Your task to perform on an android device: Go to internet settings Image 0: 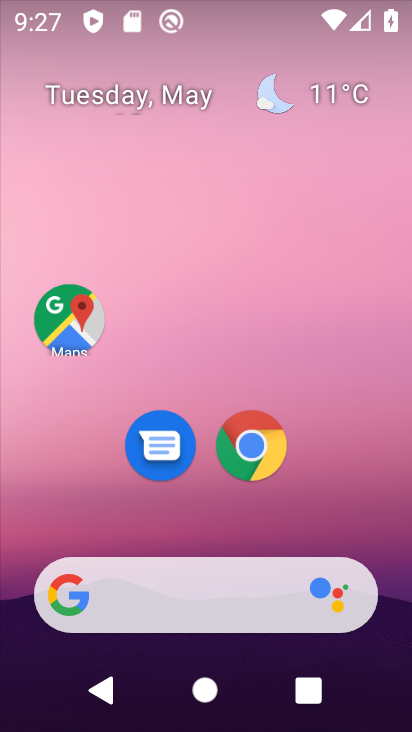
Step 0: drag from (156, 582) to (377, 24)
Your task to perform on an android device: Go to internet settings Image 1: 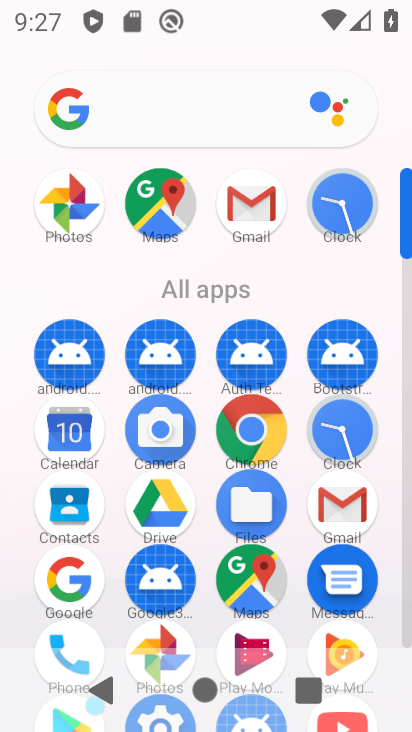
Step 1: drag from (214, 607) to (94, 5)
Your task to perform on an android device: Go to internet settings Image 2: 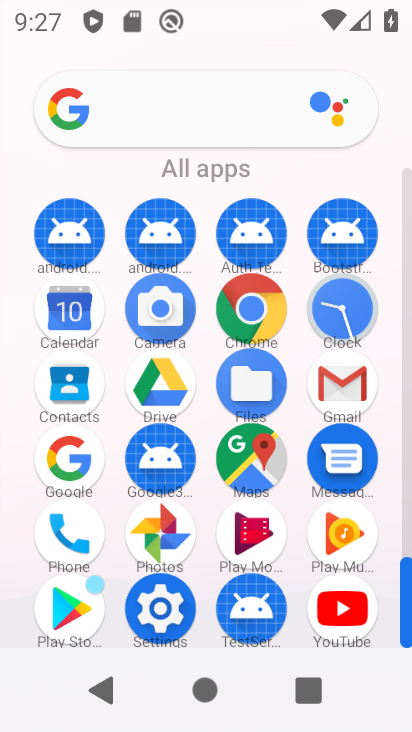
Step 2: click (170, 616)
Your task to perform on an android device: Go to internet settings Image 3: 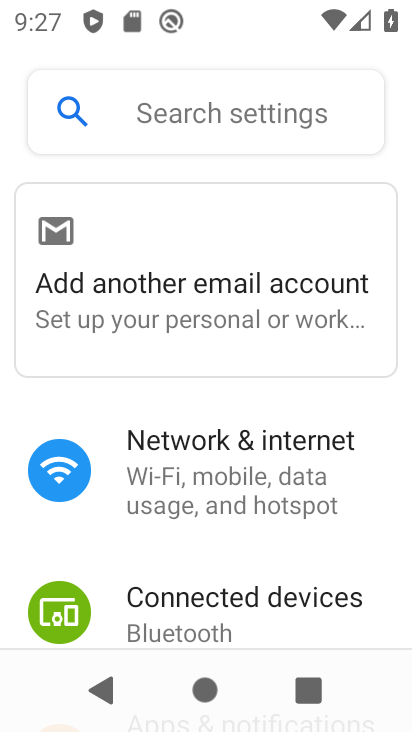
Step 3: click (174, 460)
Your task to perform on an android device: Go to internet settings Image 4: 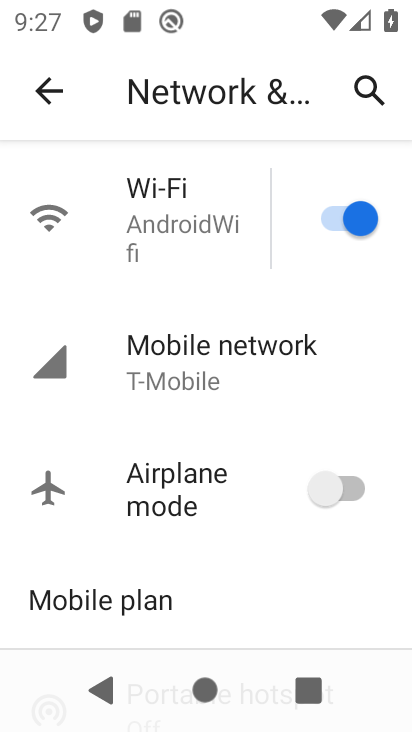
Step 4: task complete